Your task to perform on an android device: Find coffee shops on Maps Image 0: 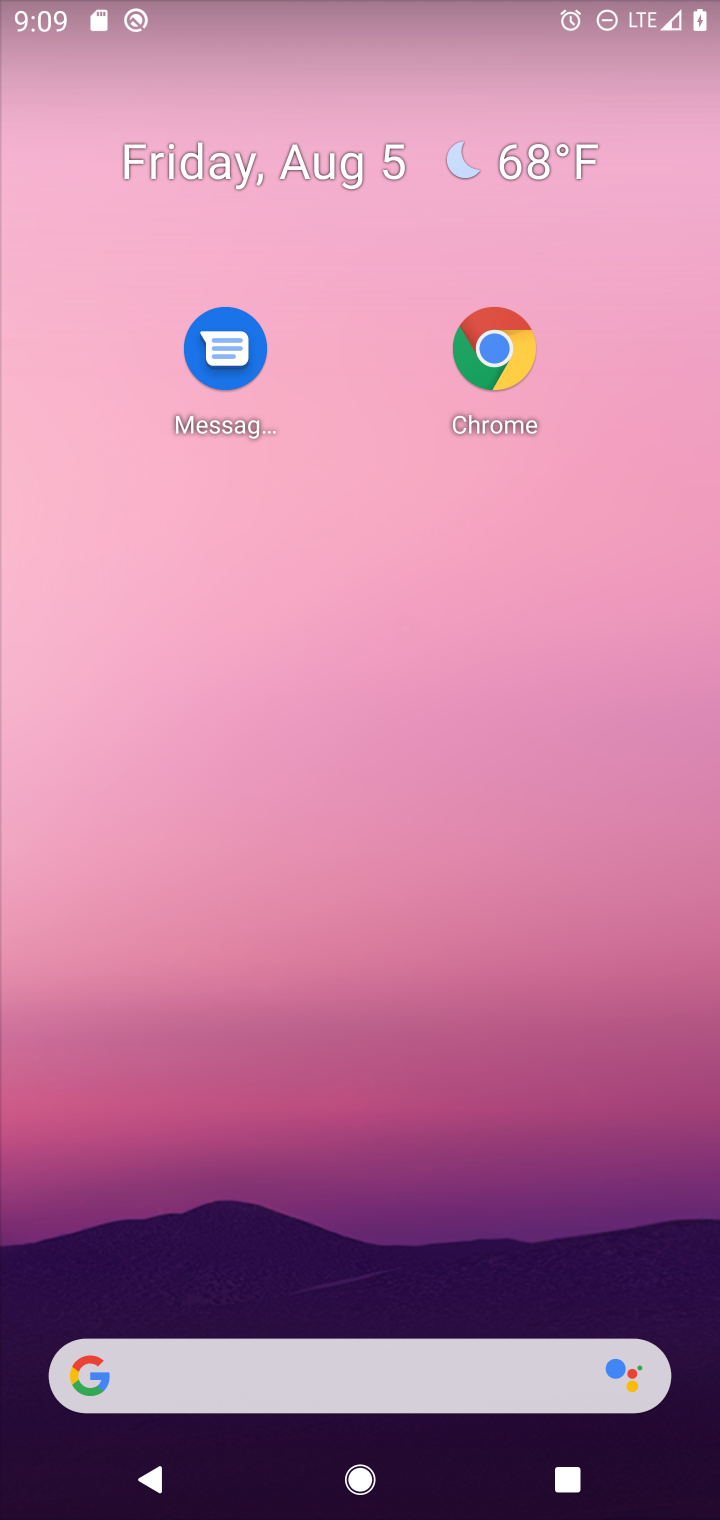
Step 0: press home button
Your task to perform on an android device: Find coffee shops on Maps Image 1: 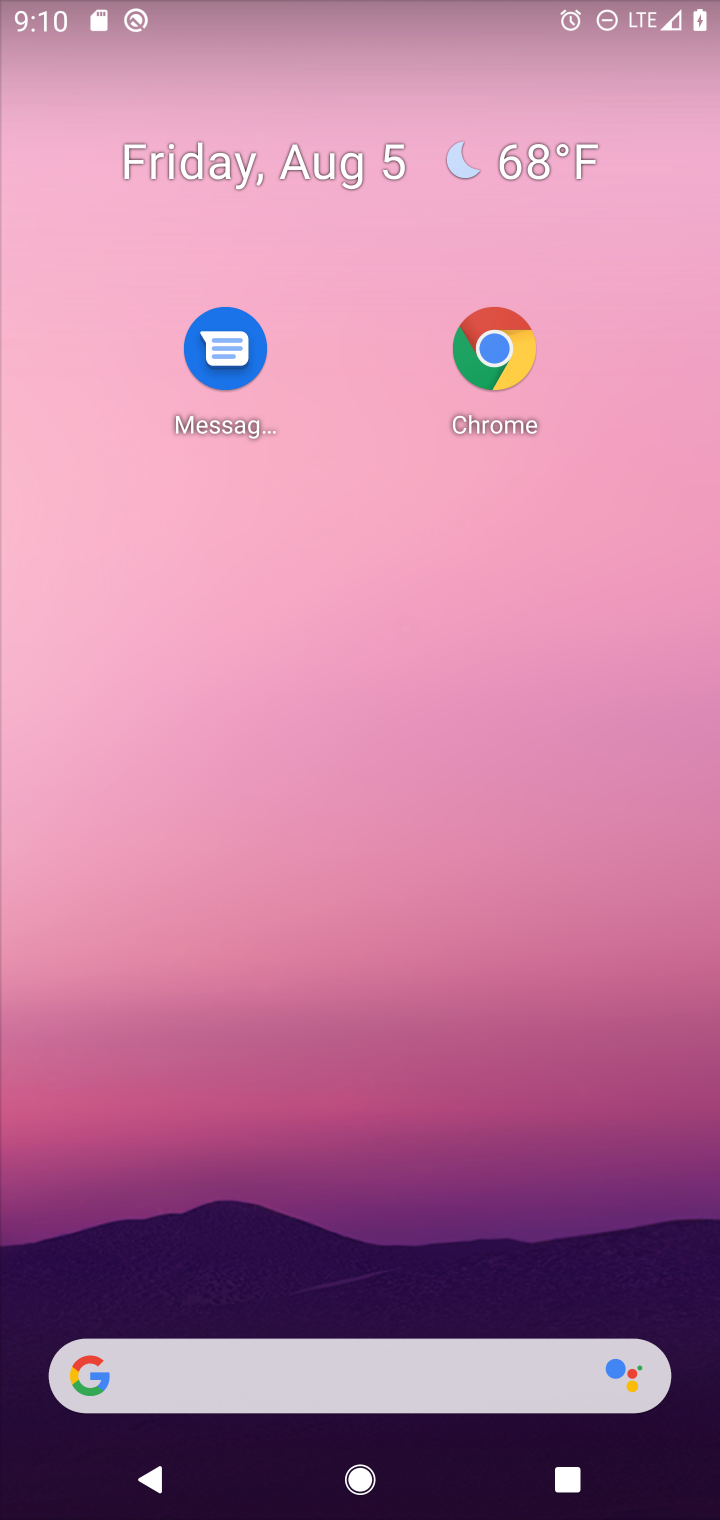
Step 1: drag from (432, 1422) to (482, 400)
Your task to perform on an android device: Find coffee shops on Maps Image 2: 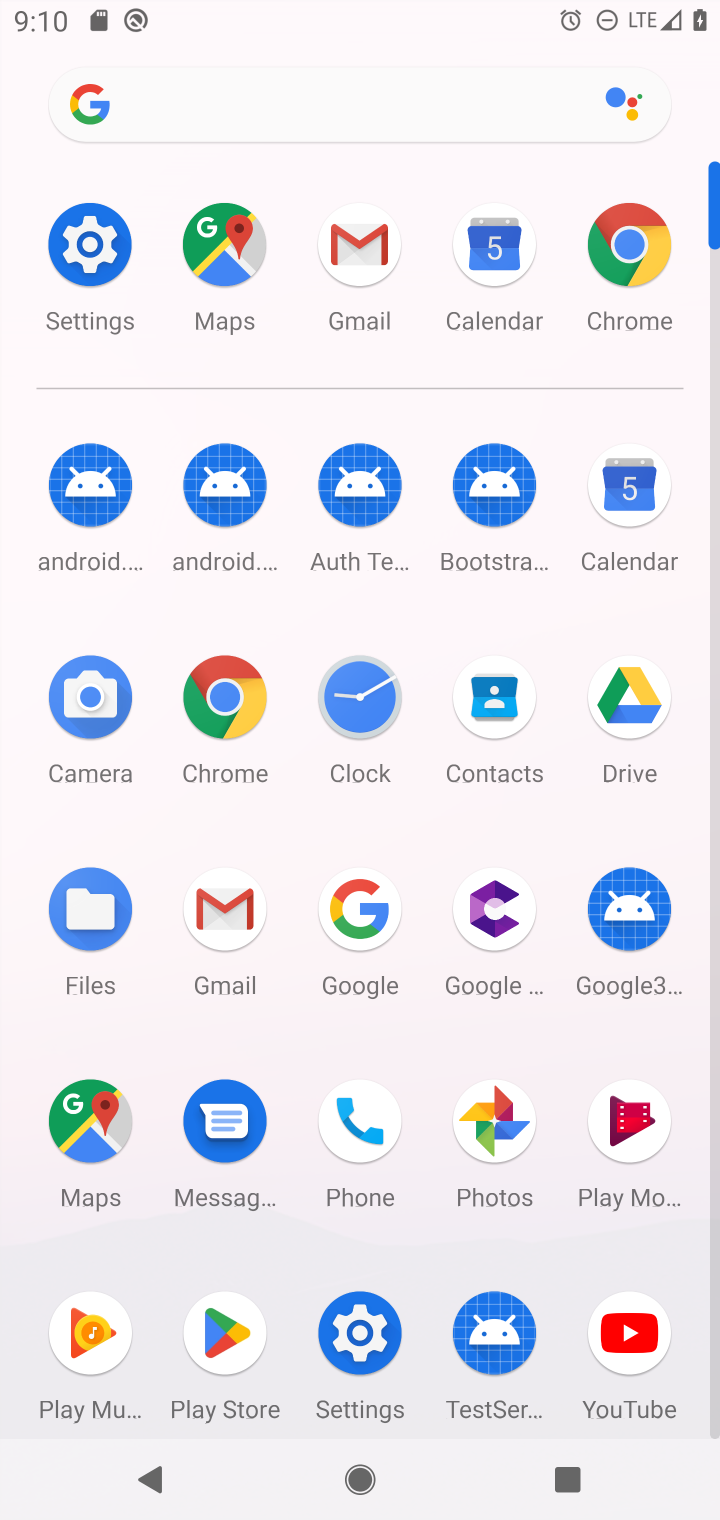
Step 2: click (251, 267)
Your task to perform on an android device: Find coffee shops on Maps Image 3: 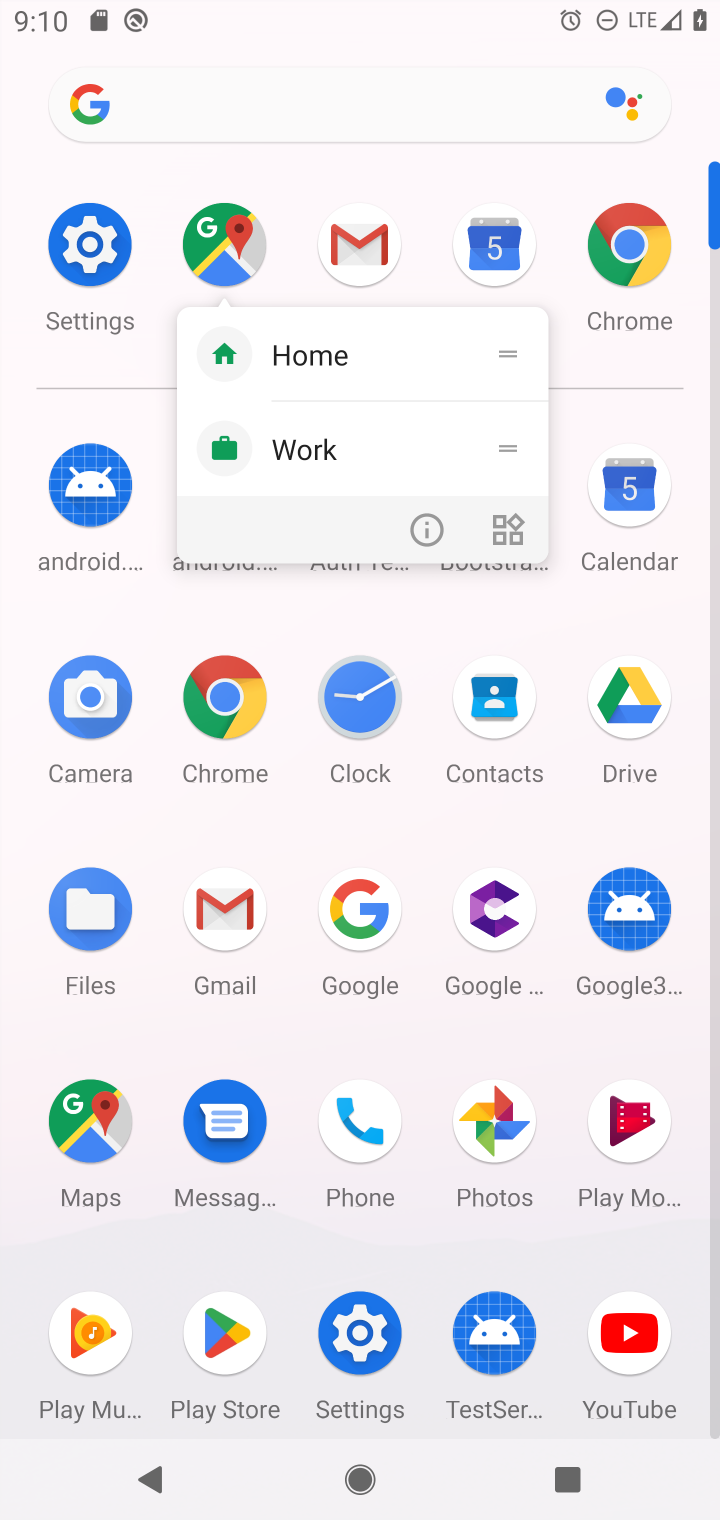
Step 3: click (234, 249)
Your task to perform on an android device: Find coffee shops on Maps Image 4: 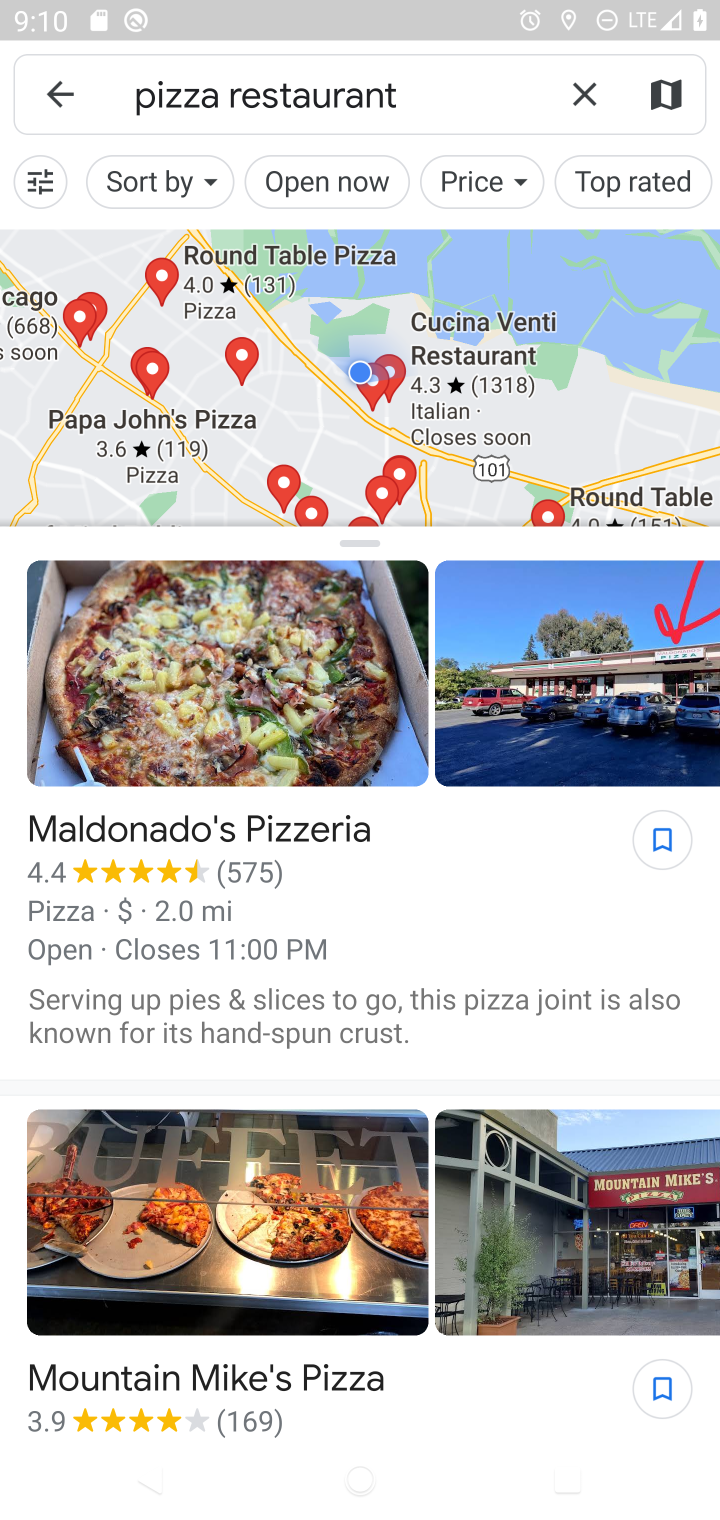
Step 4: click (590, 88)
Your task to perform on an android device: Find coffee shops on Maps Image 5: 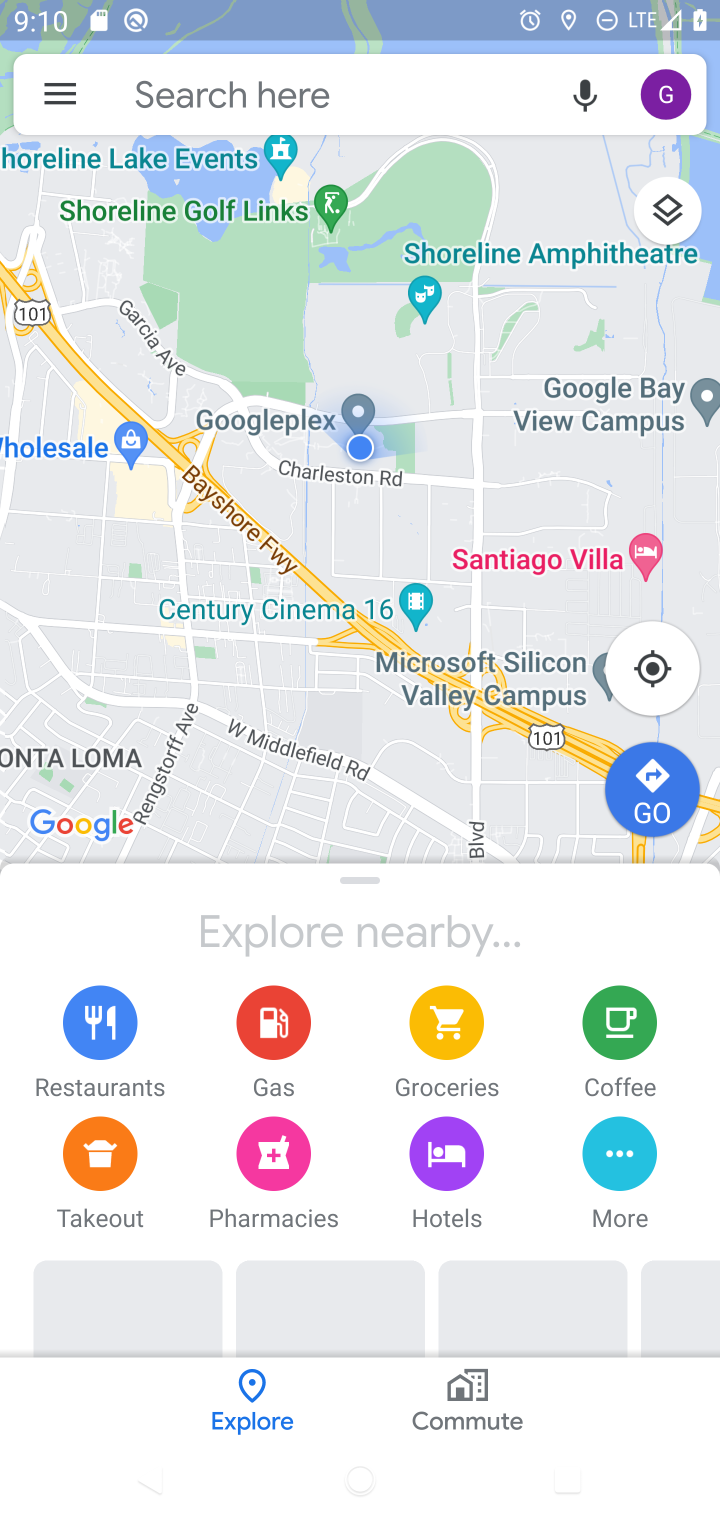
Step 5: click (291, 100)
Your task to perform on an android device: Find coffee shops on Maps Image 6: 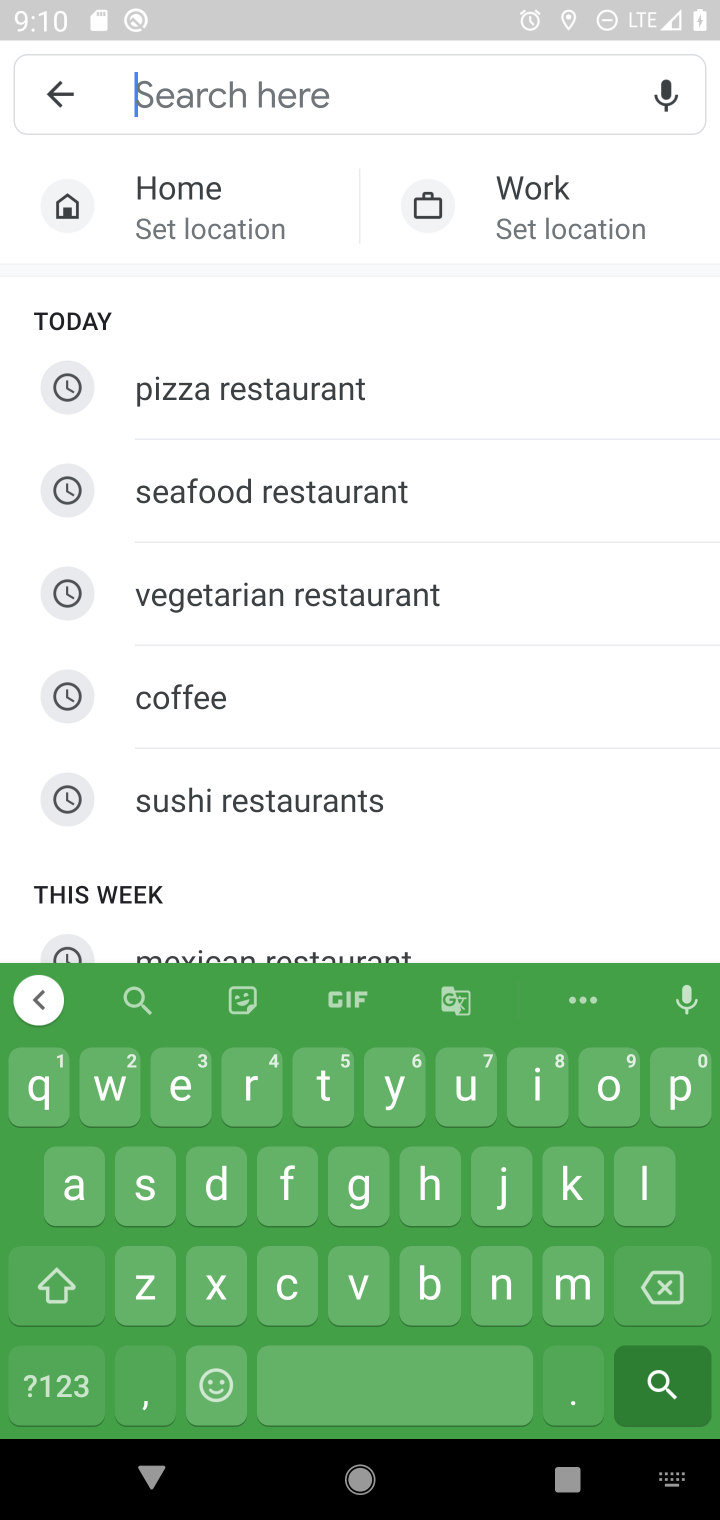
Step 6: click (204, 706)
Your task to perform on an android device: Find coffee shops on Maps Image 7: 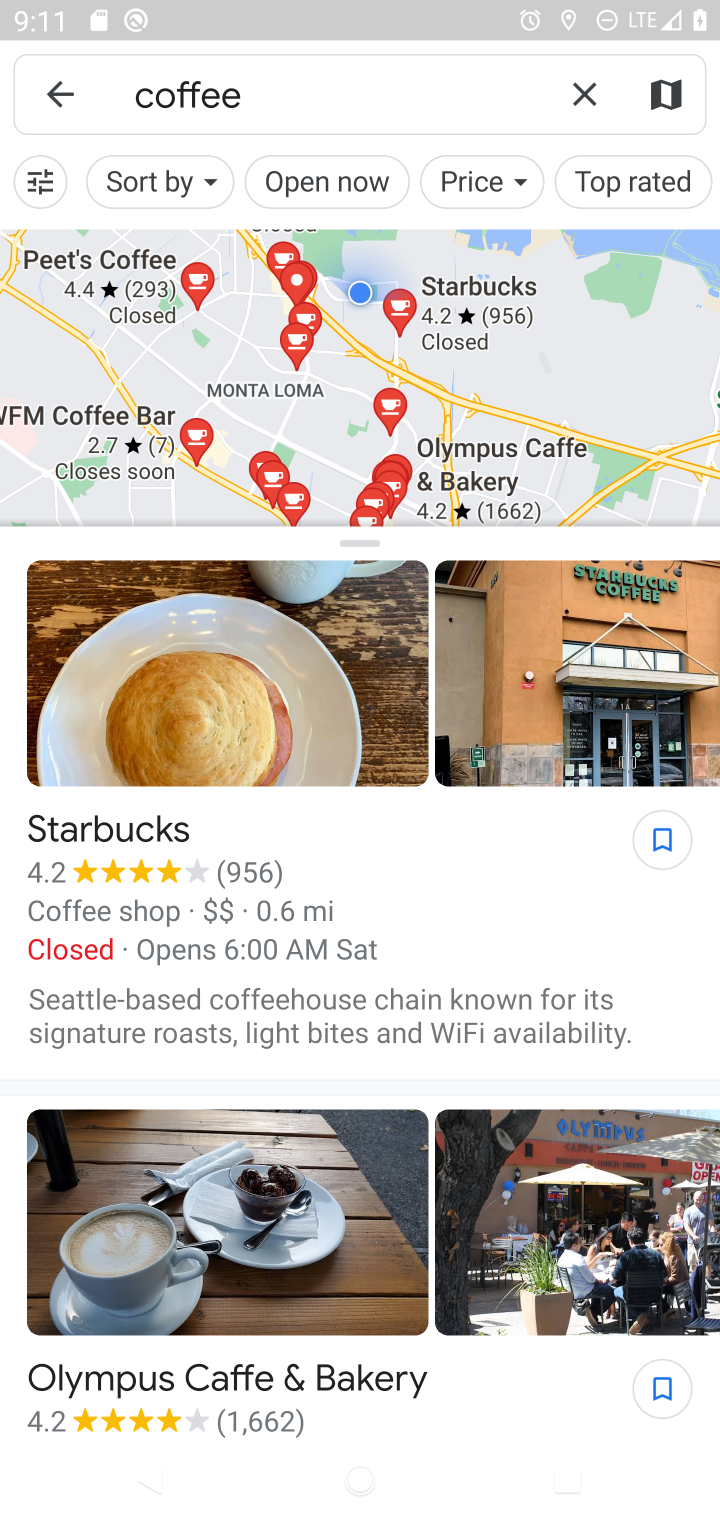
Step 7: task complete